Your task to perform on an android device: Play the last video I watched on Youtube Image 0: 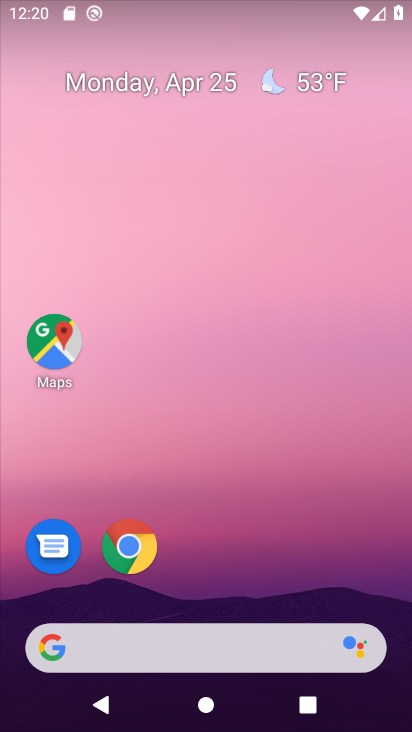
Step 0: drag from (268, 213) to (268, 0)
Your task to perform on an android device: Play the last video I watched on Youtube Image 1: 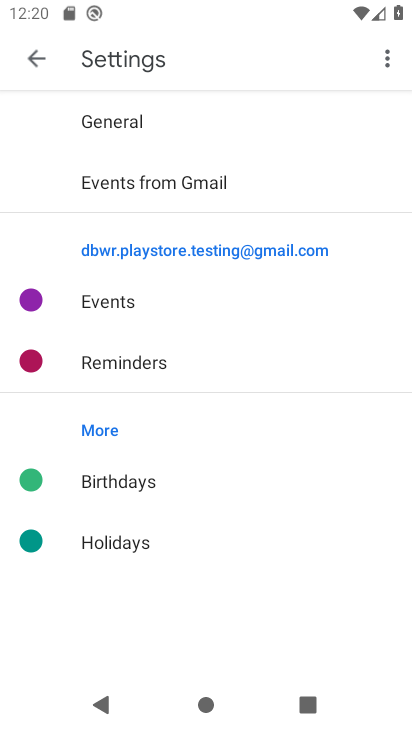
Step 1: press home button
Your task to perform on an android device: Play the last video I watched on Youtube Image 2: 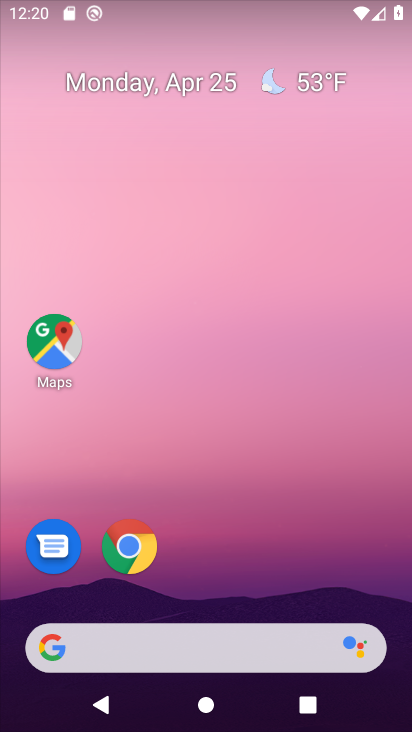
Step 2: drag from (234, 512) to (262, 0)
Your task to perform on an android device: Play the last video I watched on Youtube Image 3: 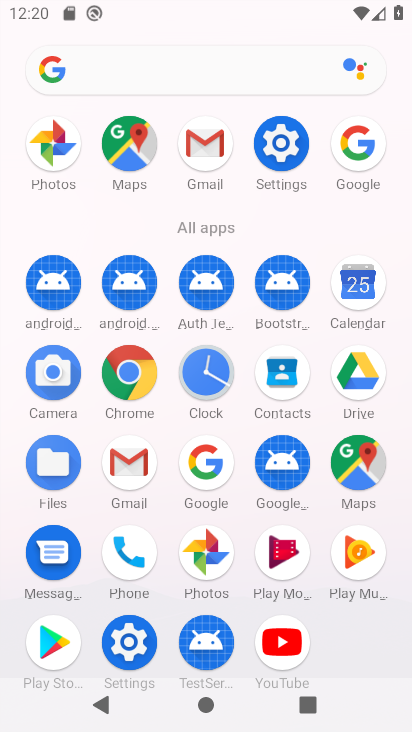
Step 3: click (280, 641)
Your task to perform on an android device: Play the last video I watched on Youtube Image 4: 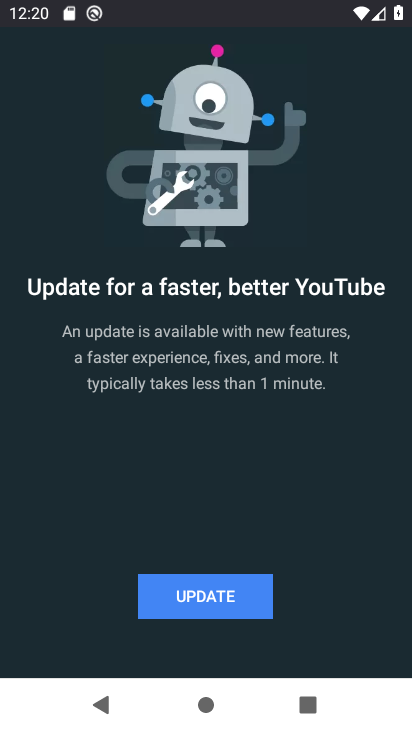
Step 4: click (171, 605)
Your task to perform on an android device: Play the last video I watched on Youtube Image 5: 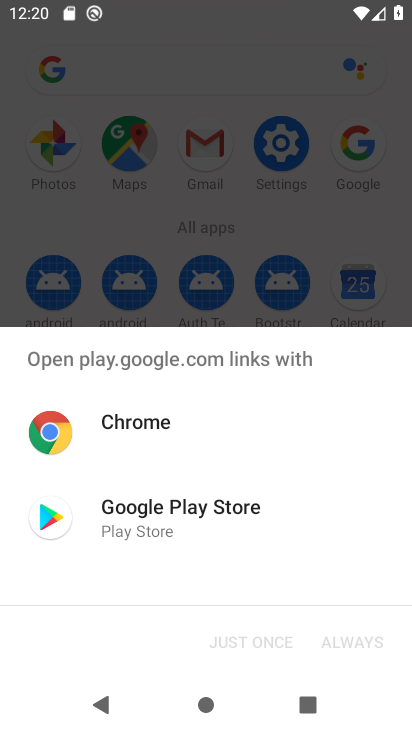
Step 5: click (187, 506)
Your task to perform on an android device: Play the last video I watched on Youtube Image 6: 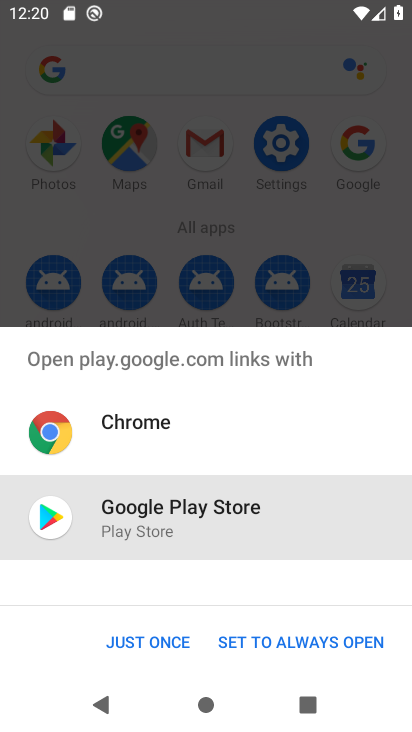
Step 6: click (168, 645)
Your task to perform on an android device: Play the last video I watched on Youtube Image 7: 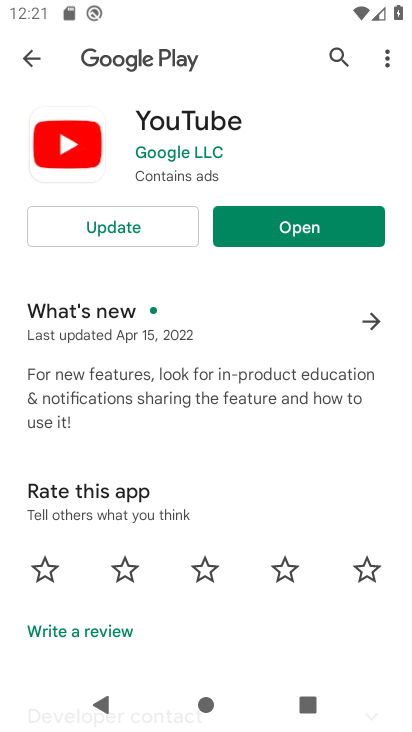
Step 7: click (93, 218)
Your task to perform on an android device: Play the last video I watched on Youtube Image 8: 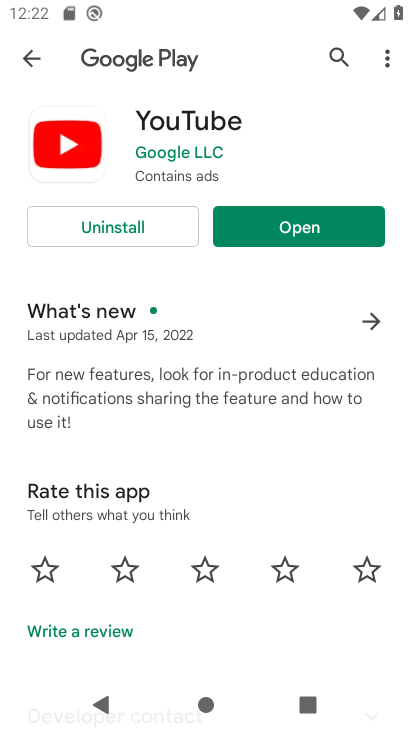
Step 8: click (330, 221)
Your task to perform on an android device: Play the last video I watched on Youtube Image 9: 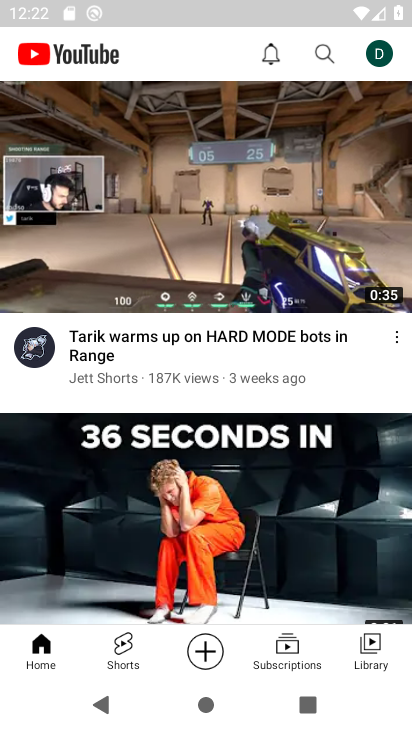
Step 9: click (356, 656)
Your task to perform on an android device: Play the last video I watched on Youtube Image 10: 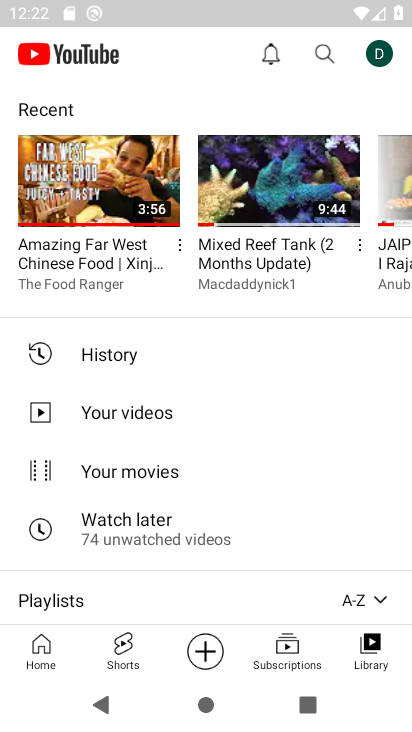
Step 10: click (133, 357)
Your task to perform on an android device: Play the last video I watched on Youtube Image 11: 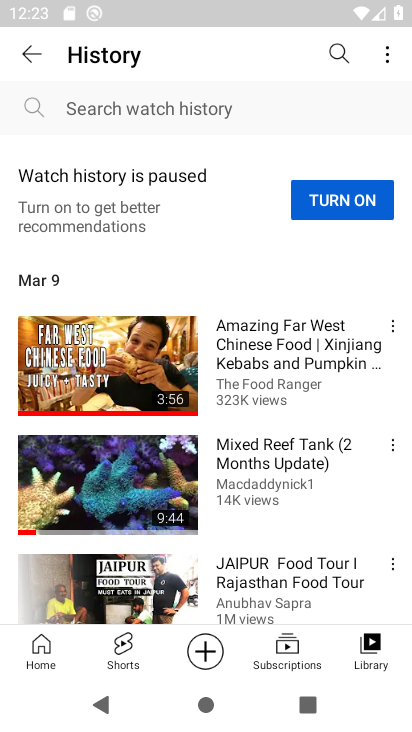
Step 11: click (247, 331)
Your task to perform on an android device: Play the last video I watched on Youtube Image 12: 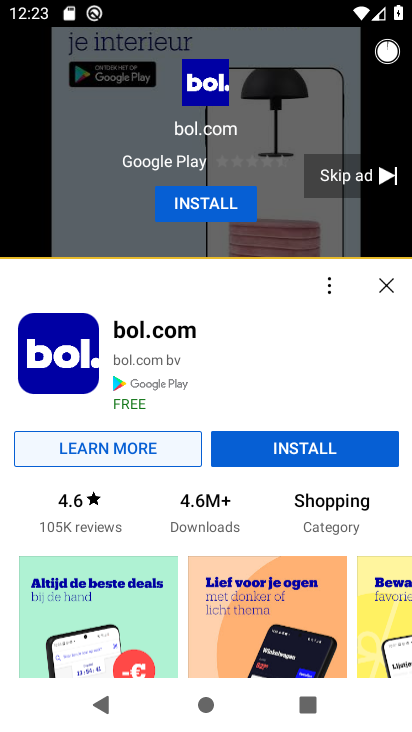
Step 12: task complete